Your task to perform on an android device: Search for razer blade on costco, select the first entry, and add it to the cart. Image 0: 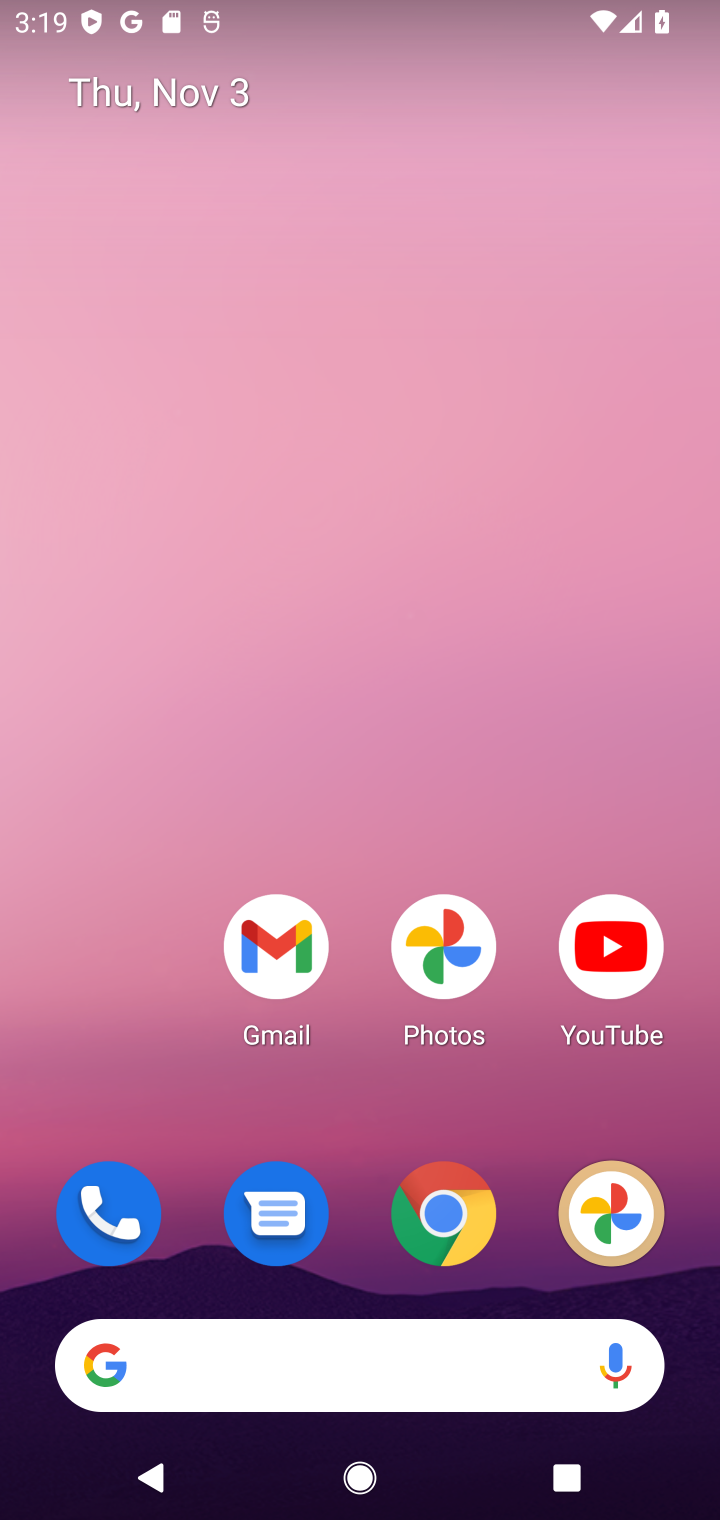
Step 0: click (446, 1244)
Your task to perform on an android device: Search for razer blade on costco, select the first entry, and add it to the cart. Image 1: 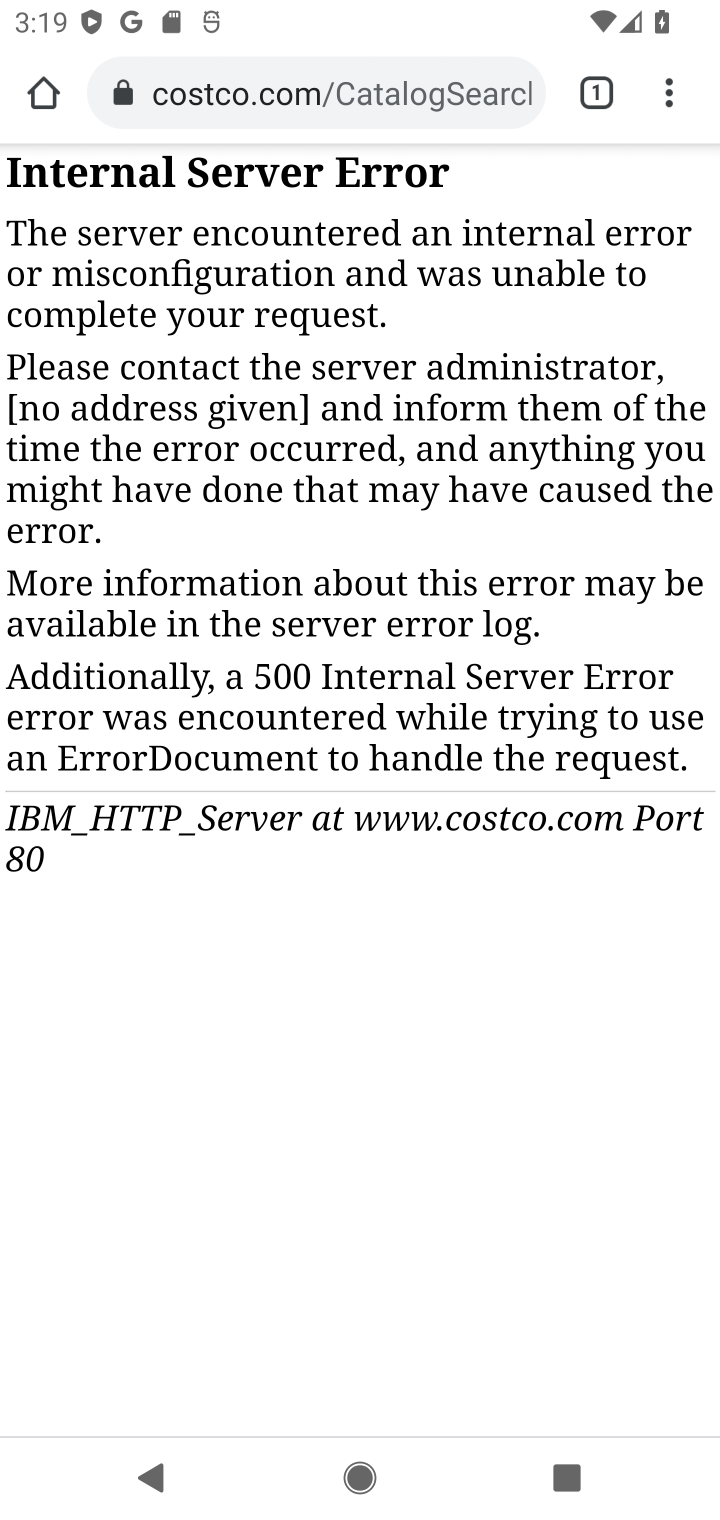
Step 1: click (266, 102)
Your task to perform on an android device: Search for razer blade on costco, select the first entry, and add it to the cart. Image 2: 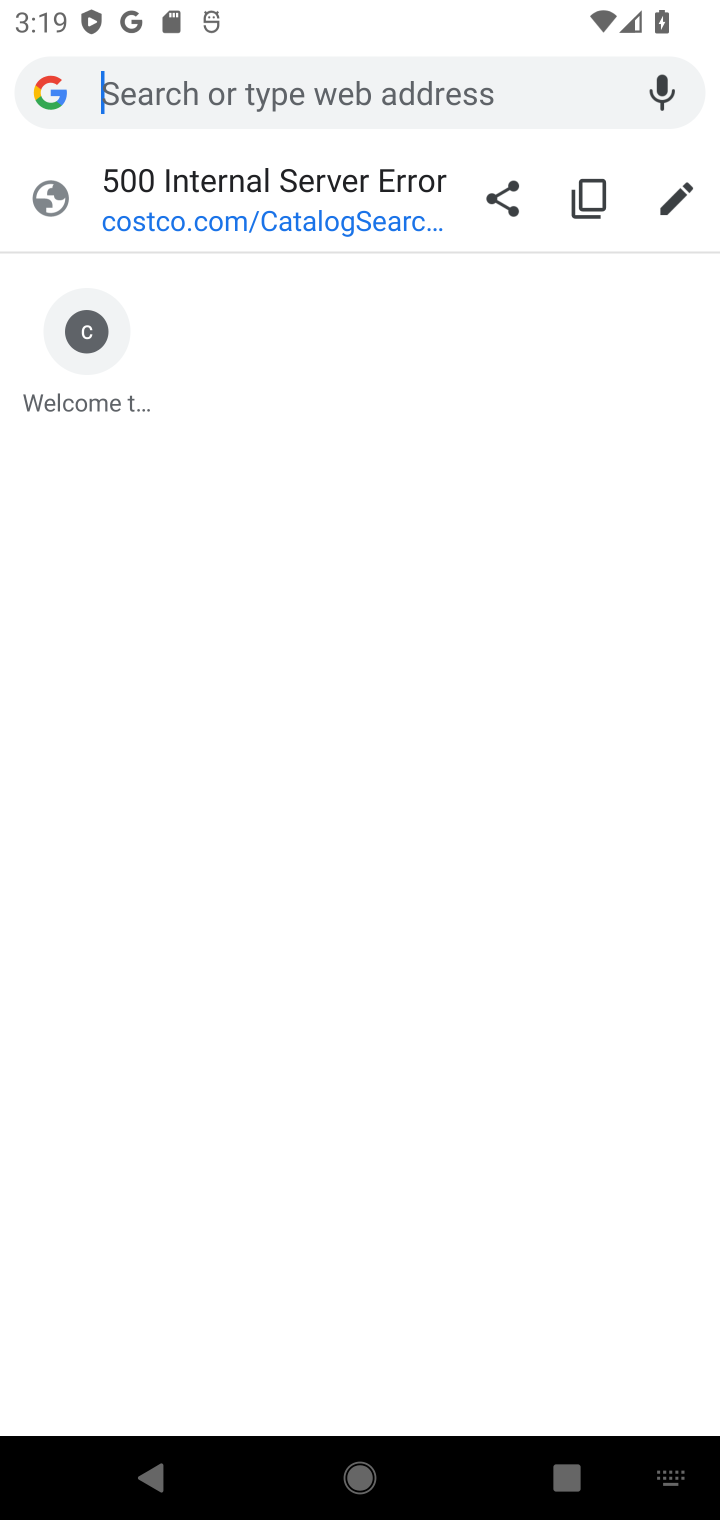
Step 2: type "costco.com"
Your task to perform on an android device: Search for razer blade on costco, select the first entry, and add it to the cart. Image 3: 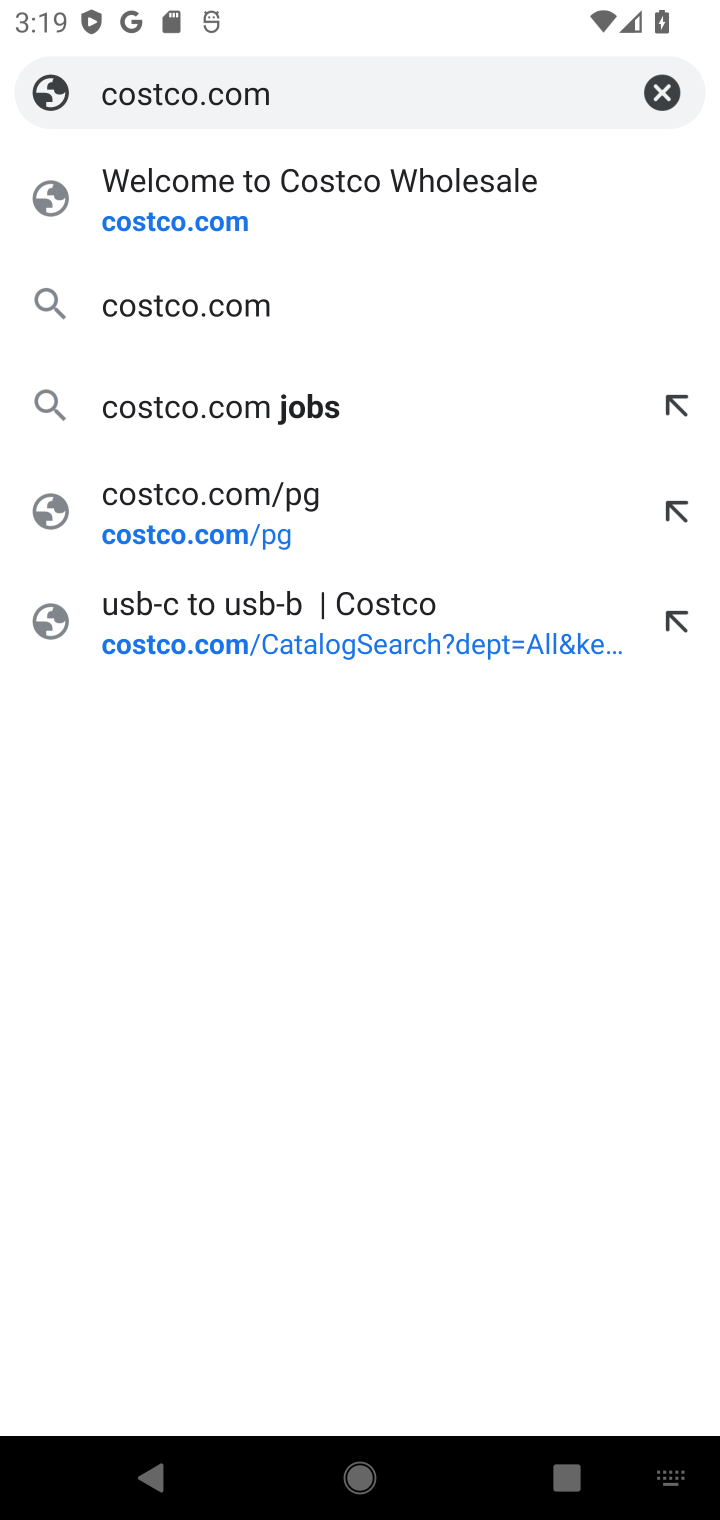
Step 3: click (177, 305)
Your task to perform on an android device: Search for razer blade on costco, select the first entry, and add it to the cart. Image 4: 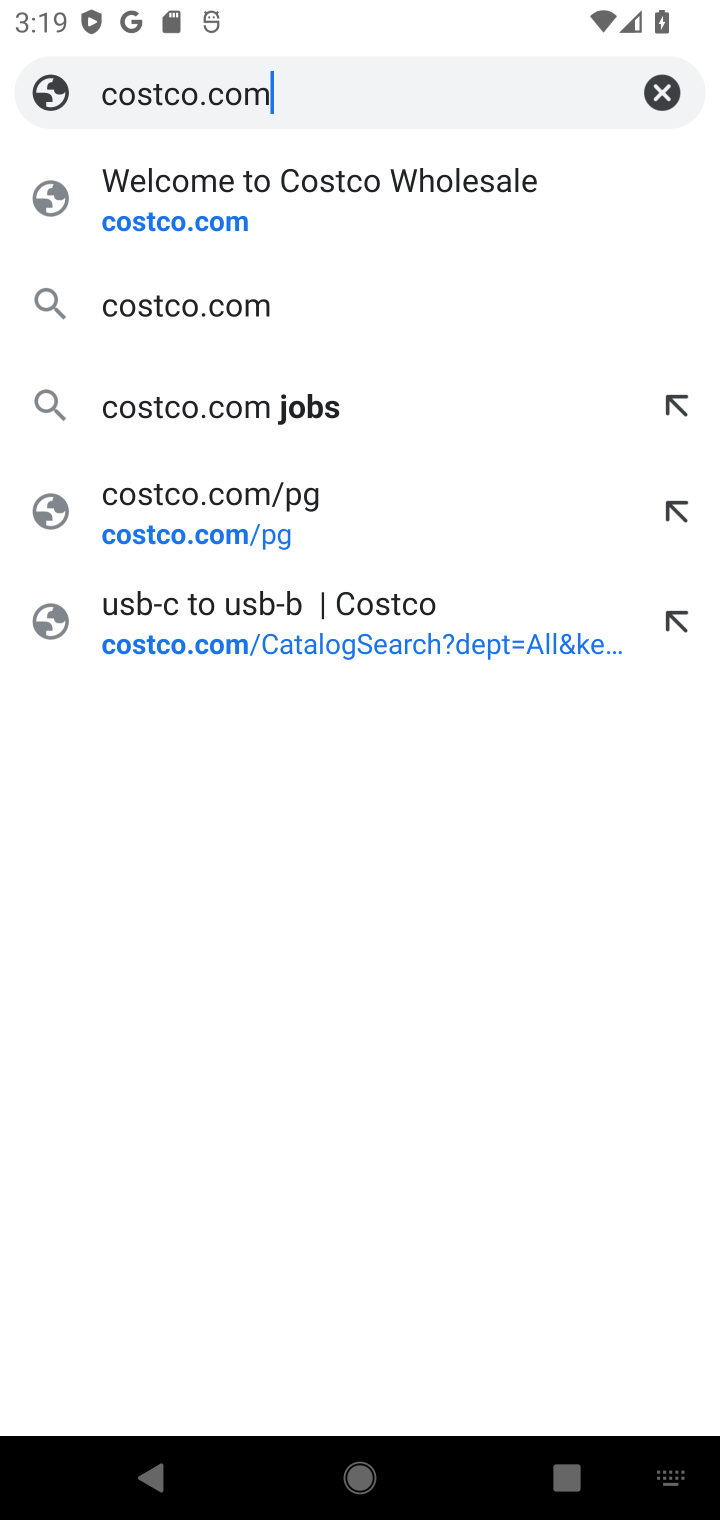
Step 4: click (166, 230)
Your task to perform on an android device: Search for razer blade on costco, select the first entry, and add it to the cart. Image 5: 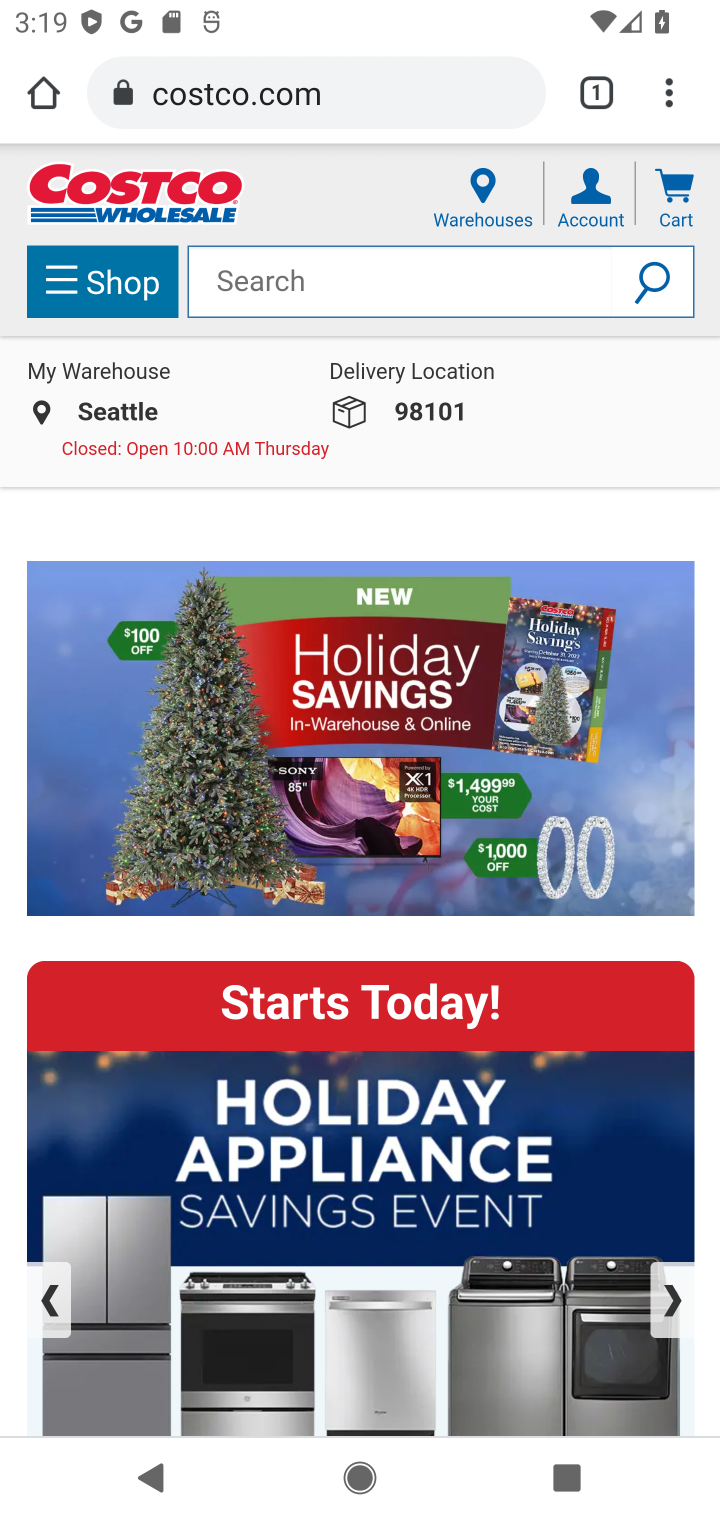
Step 5: click (276, 289)
Your task to perform on an android device: Search for razer blade on costco, select the first entry, and add it to the cart. Image 6: 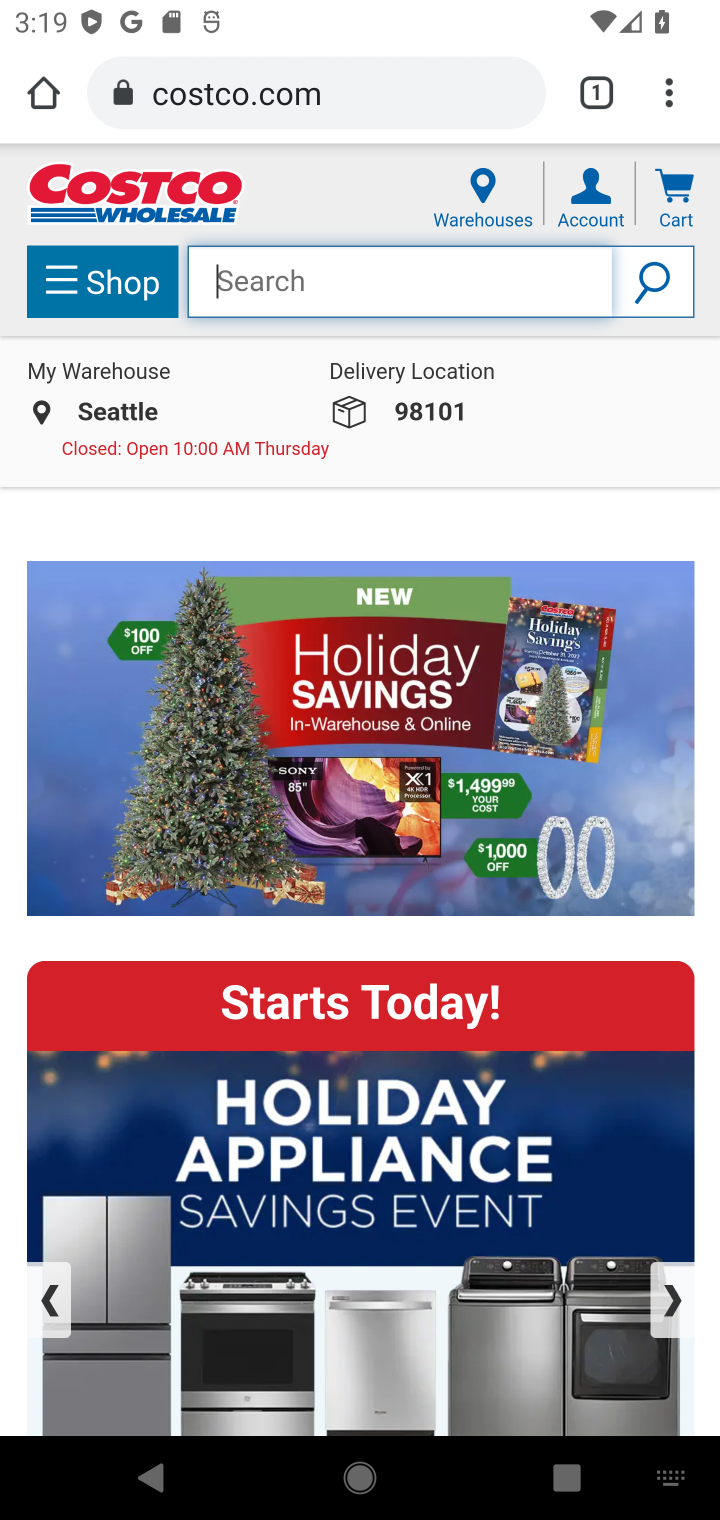
Step 6: type "razer blade "
Your task to perform on an android device: Search for razer blade on costco, select the first entry, and add it to the cart. Image 7: 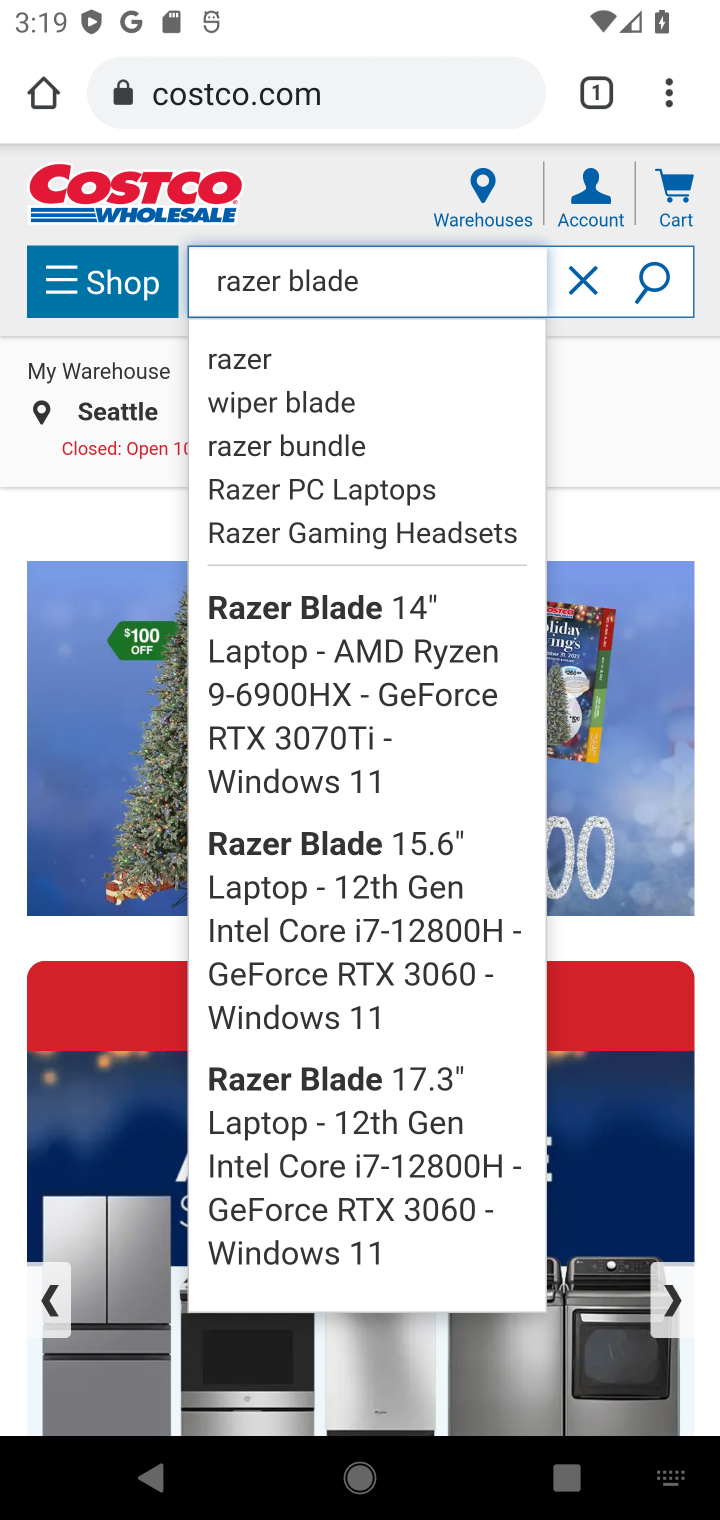
Step 7: click (644, 288)
Your task to perform on an android device: Search for razer blade on costco, select the first entry, and add it to the cart. Image 8: 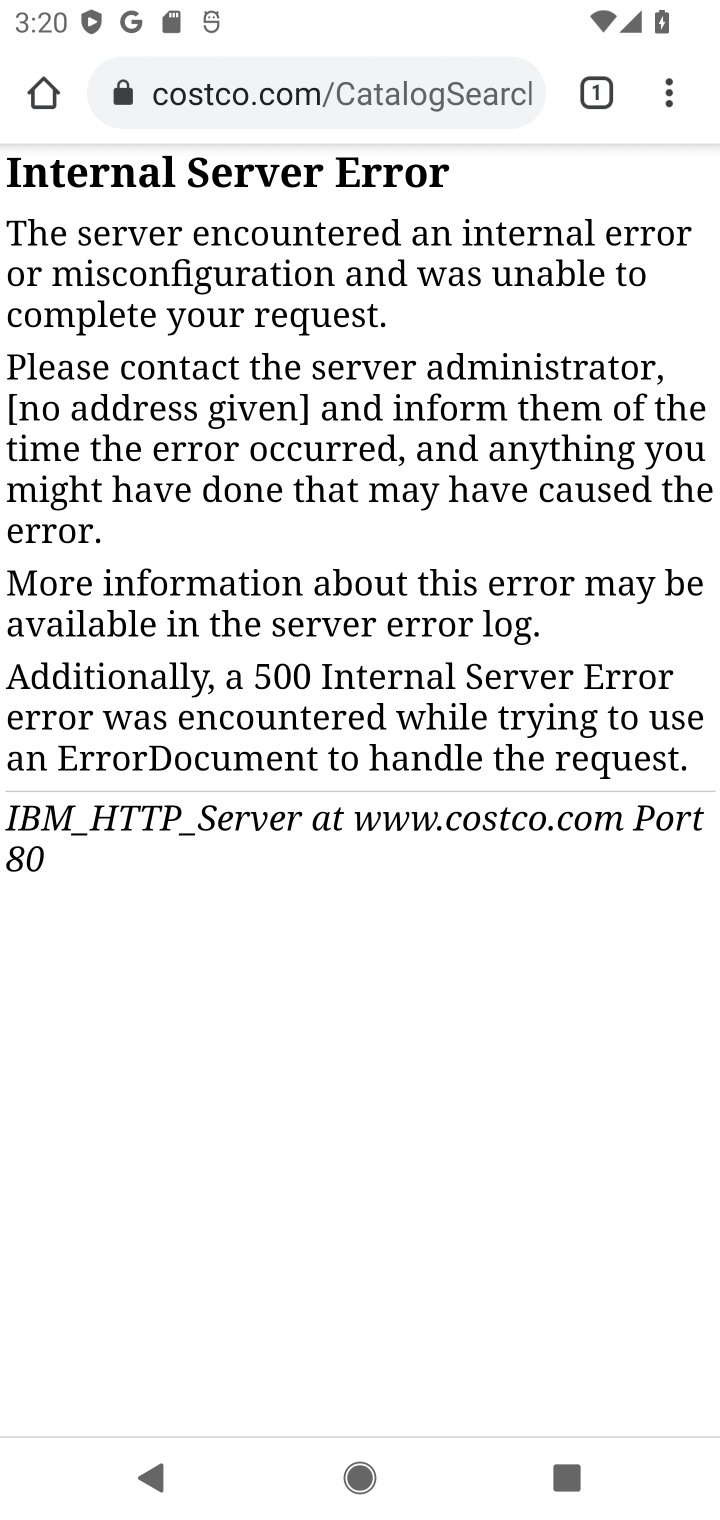
Step 8: task complete